Your task to perform on an android device: Set the phone to "Do not disturb". Image 0: 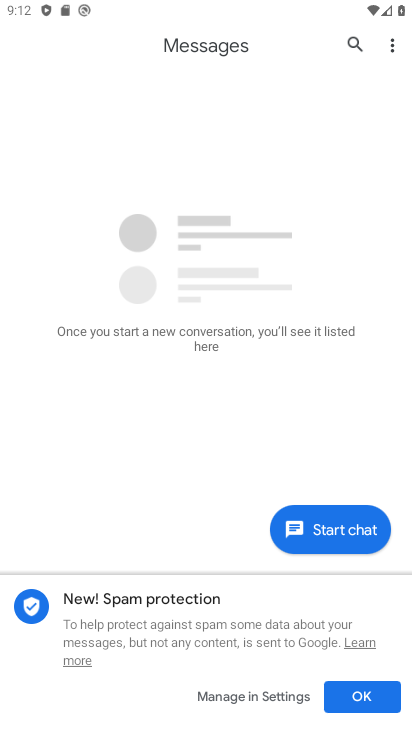
Step 0: press home button
Your task to perform on an android device: Set the phone to "Do not disturb". Image 1: 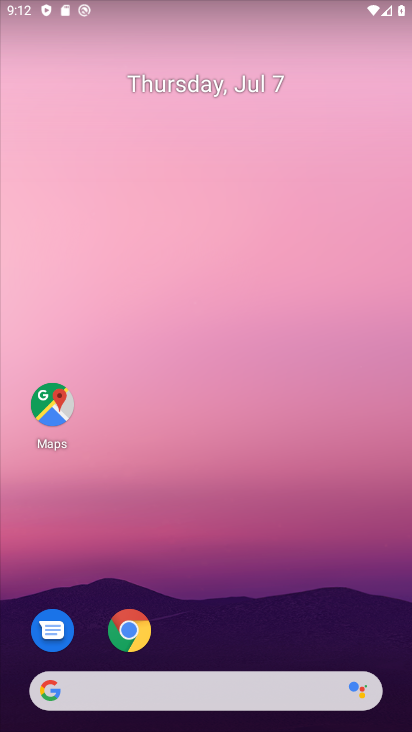
Step 1: drag from (241, 663) to (349, 128)
Your task to perform on an android device: Set the phone to "Do not disturb". Image 2: 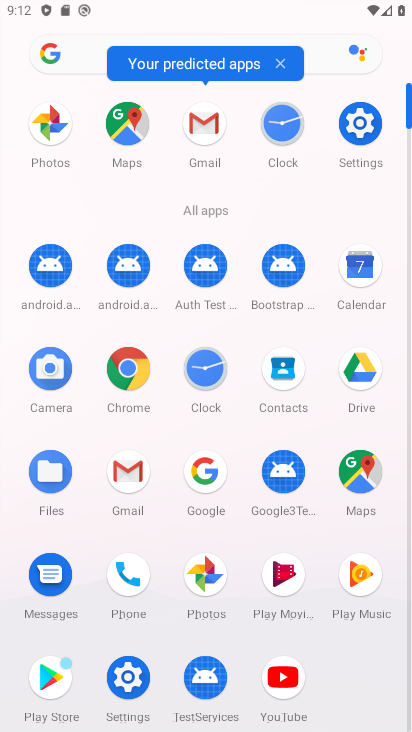
Step 2: click (117, 688)
Your task to perform on an android device: Set the phone to "Do not disturb". Image 3: 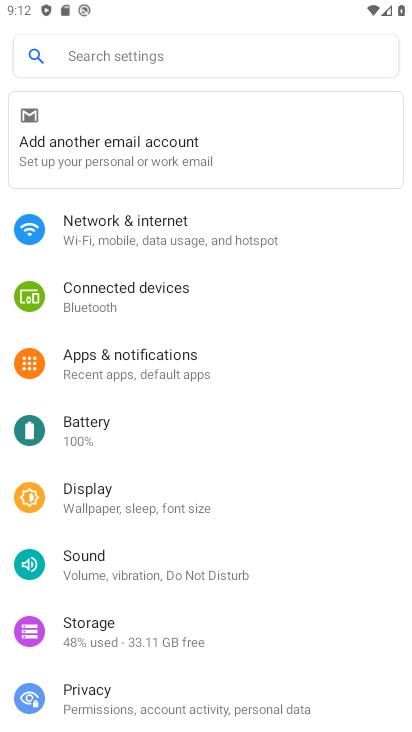
Step 3: click (194, 374)
Your task to perform on an android device: Set the phone to "Do not disturb". Image 4: 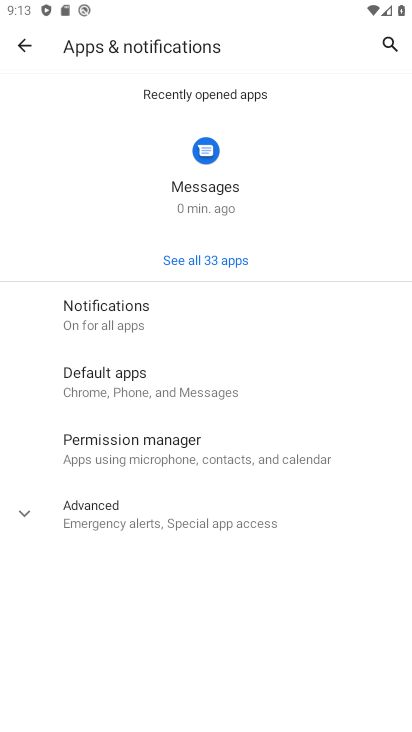
Step 4: click (173, 312)
Your task to perform on an android device: Set the phone to "Do not disturb". Image 5: 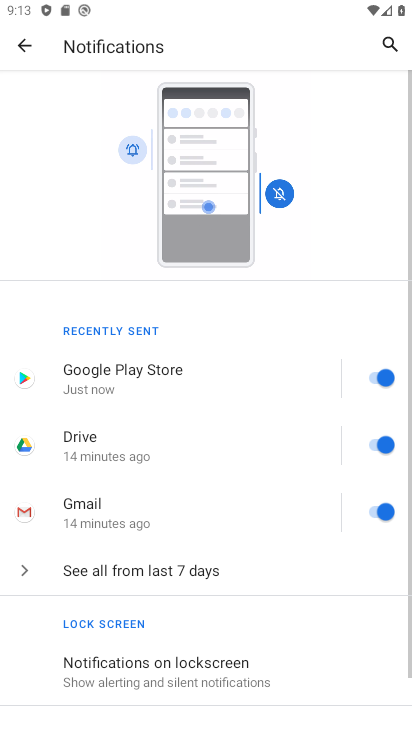
Step 5: drag from (161, 650) to (309, 76)
Your task to perform on an android device: Set the phone to "Do not disturb". Image 6: 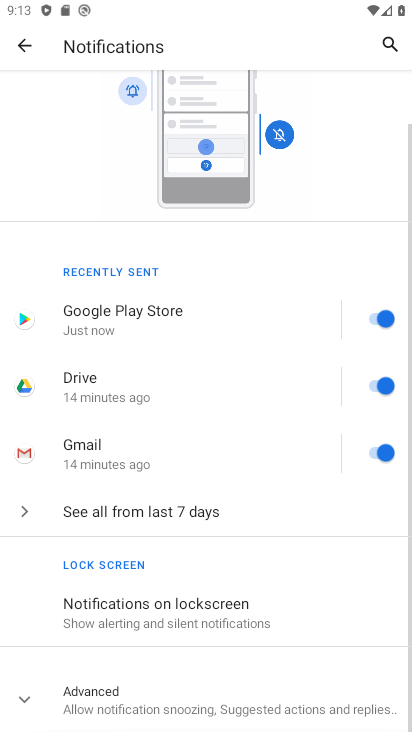
Step 6: click (149, 690)
Your task to perform on an android device: Set the phone to "Do not disturb". Image 7: 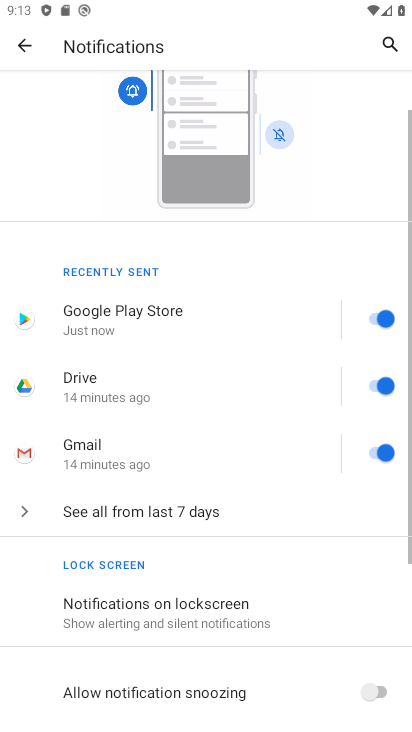
Step 7: drag from (166, 682) to (330, 222)
Your task to perform on an android device: Set the phone to "Do not disturb". Image 8: 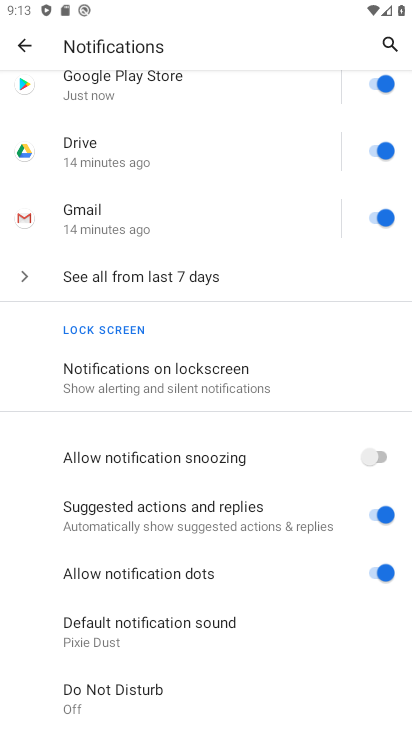
Step 8: click (150, 704)
Your task to perform on an android device: Set the phone to "Do not disturb". Image 9: 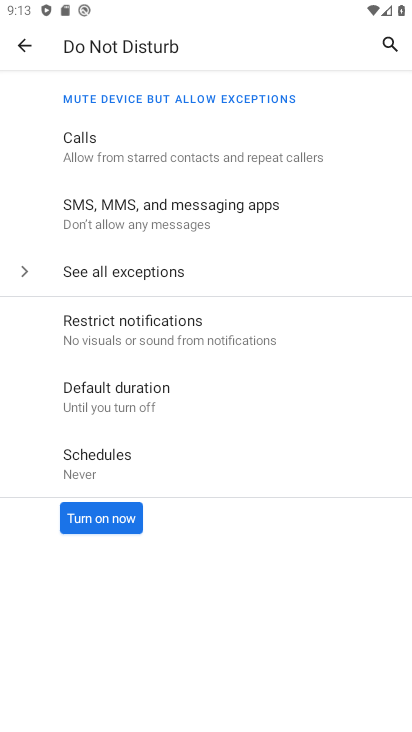
Step 9: click (119, 526)
Your task to perform on an android device: Set the phone to "Do not disturb". Image 10: 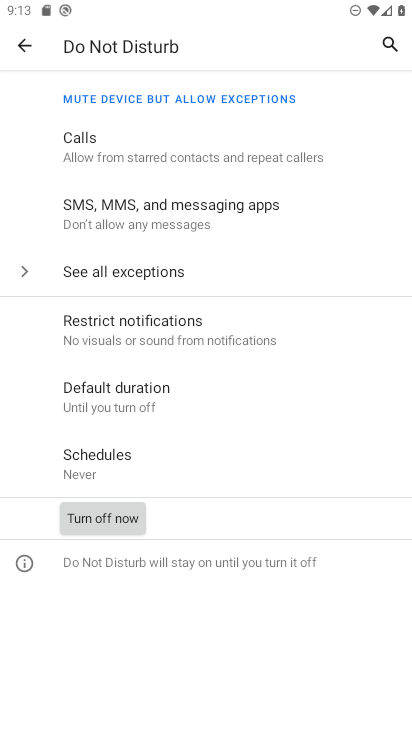
Step 10: task complete